Your task to perform on an android device: empty trash in google photos Image 0: 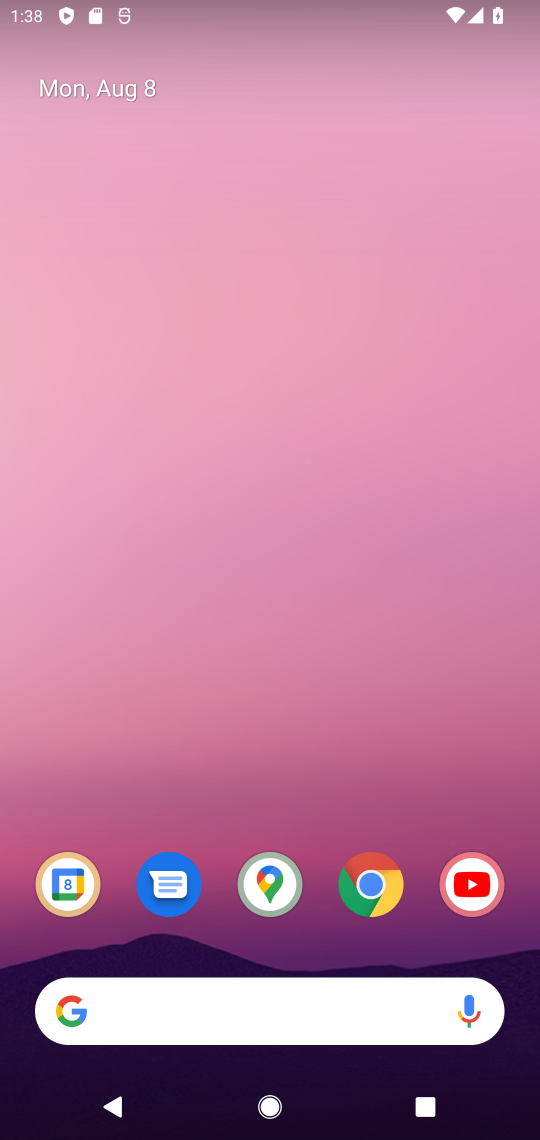
Step 0: drag from (327, 771) to (247, 3)
Your task to perform on an android device: empty trash in google photos Image 1: 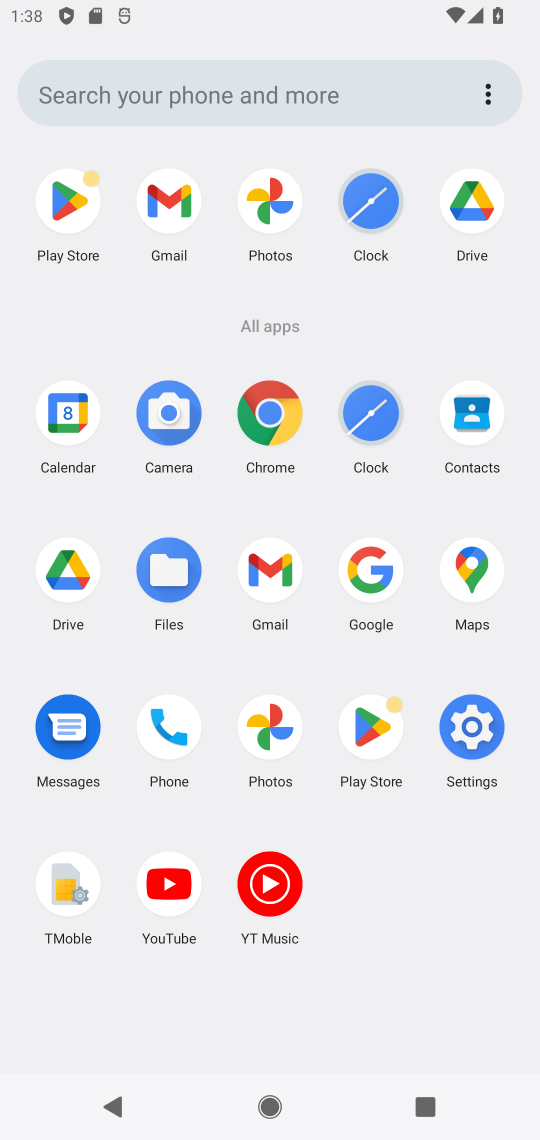
Step 1: click (274, 202)
Your task to perform on an android device: empty trash in google photos Image 2: 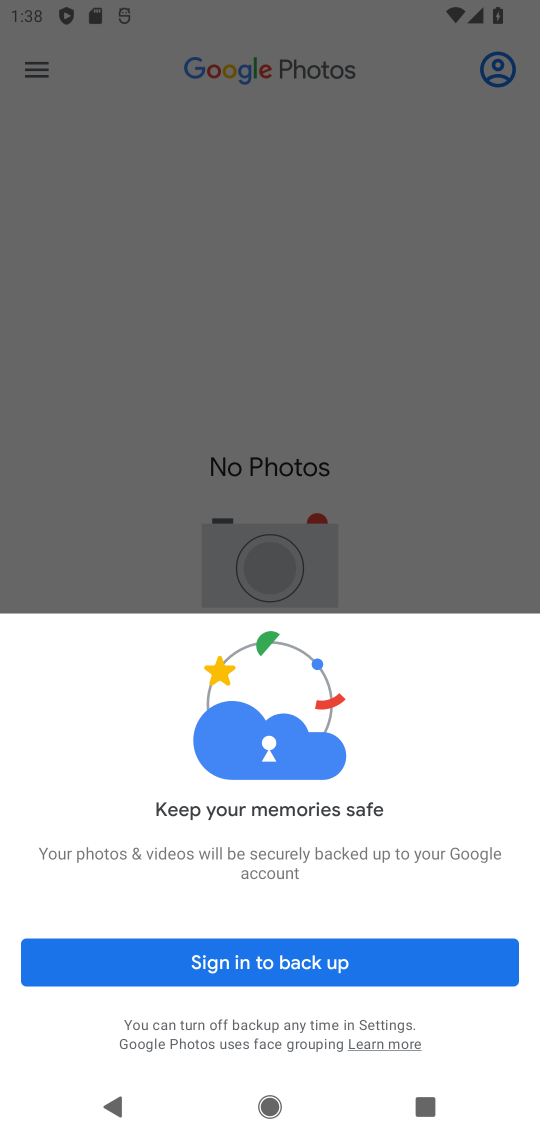
Step 2: click (406, 498)
Your task to perform on an android device: empty trash in google photos Image 3: 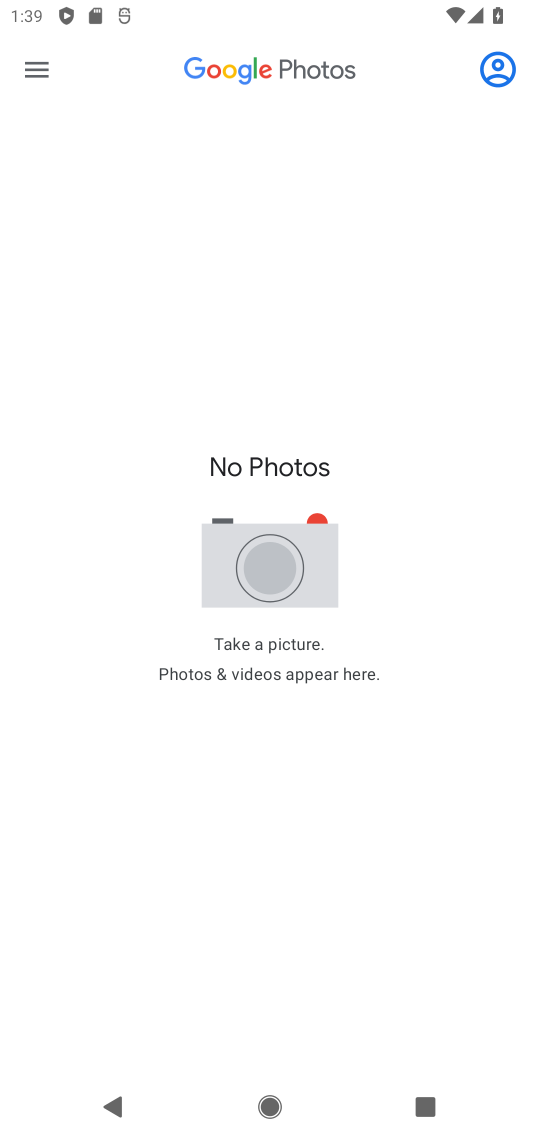
Step 3: click (32, 61)
Your task to perform on an android device: empty trash in google photos Image 4: 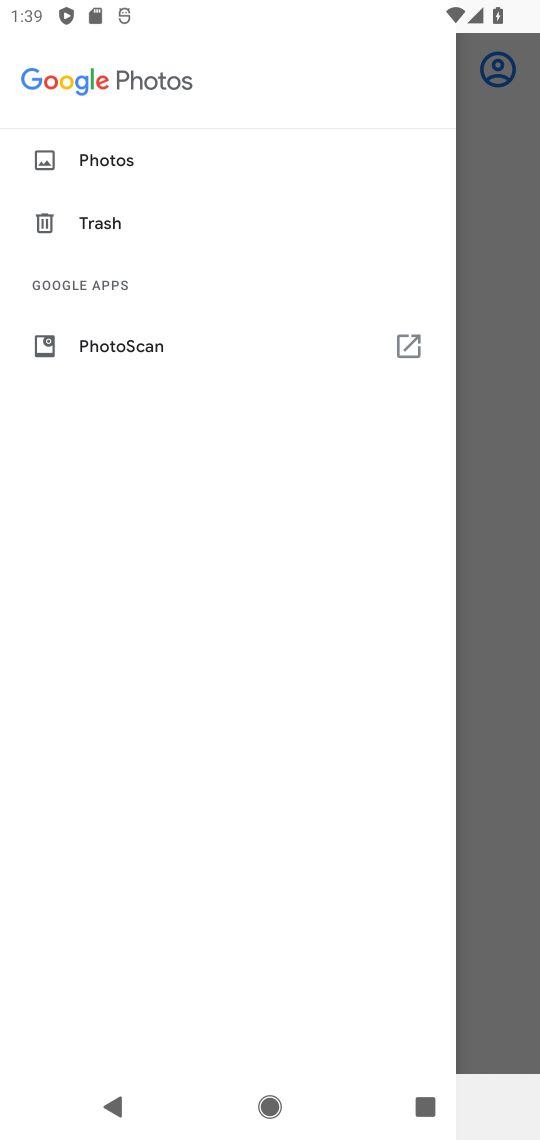
Step 4: click (88, 226)
Your task to perform on an android device: empty trash in google photos Image 5: 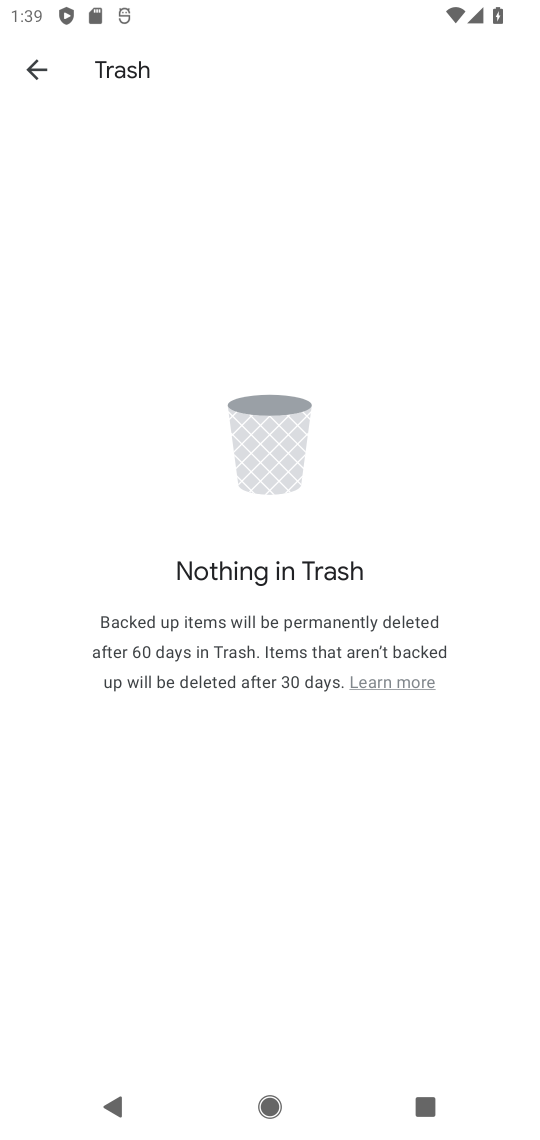
Step 5: task complete